Your task to perform on an android device: turn off notifications settings in the gmail app Image 0: 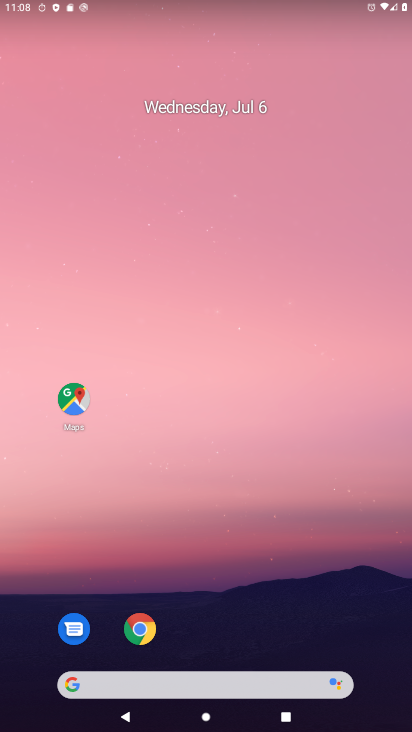
Step 0: drag from (196, 654) to (218, 78)
Your task to perform on an android device: turn off notifications settings in the gmail app Image 1: 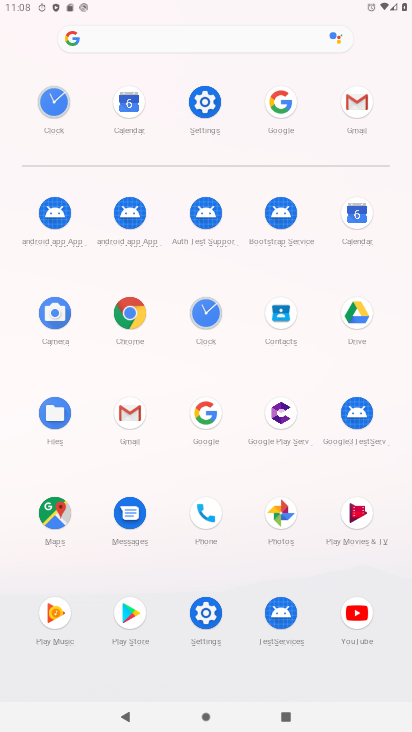
Step 1: click (353, 100)
Your task to perform on an android device: turn off notifications settings in the gmail app Image 2: 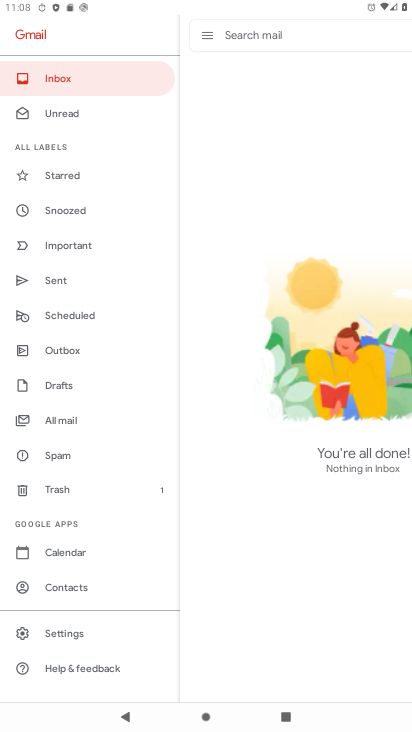
Step 2: click (75, 635)
Your task to perform on an android device: turn off notifications settings in the gmail app Image 3: 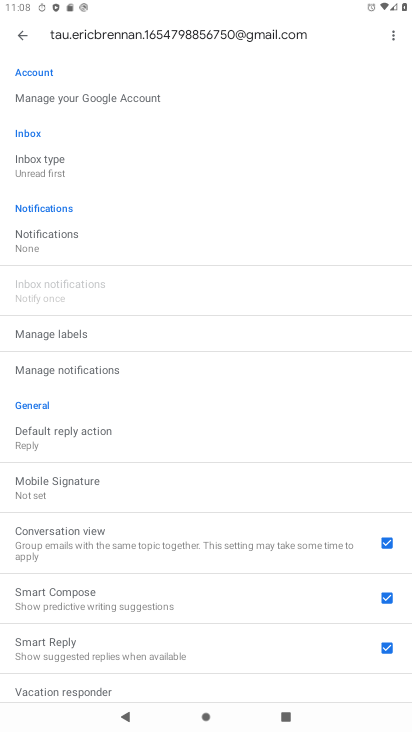
Step 3: click (91, 250)
Your task to perform on an android device: turn off notifications settings in the gmail app Image 4: 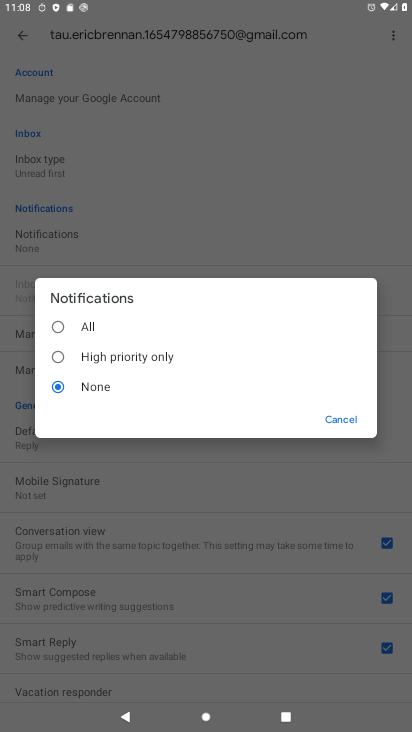
Step 4: click (104, 390)
Your task to perform on an android device: turn off notifications settings in the gmail app Image 5: 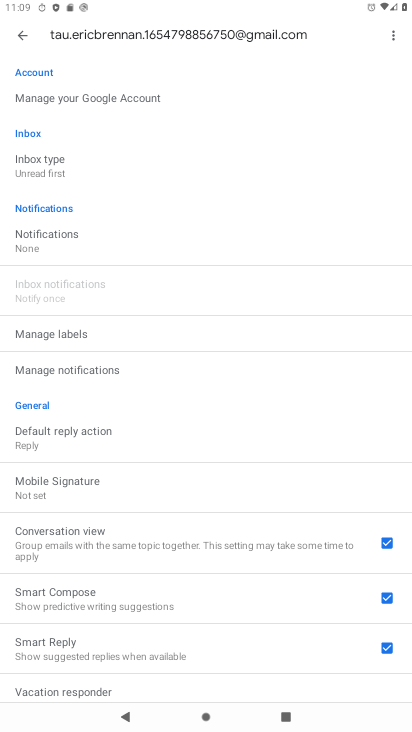
Step 5: task complete